Your task to perform on an android device: clear all cookies in the chrome app Image 0: 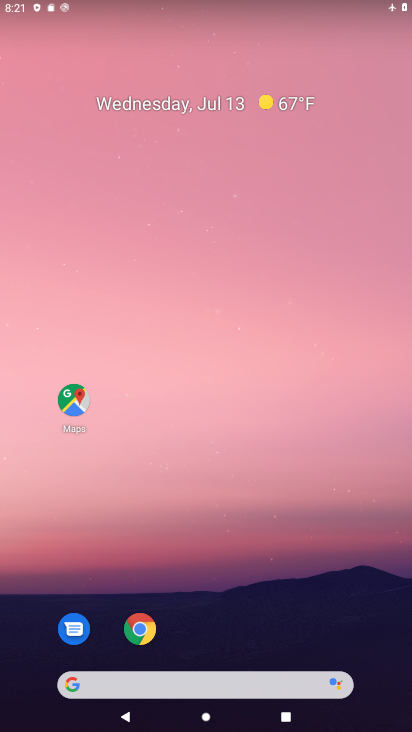
Step 0: click (137, 632)
Your task to perform on an android device: clear all cookies in the chrome app Image 1: 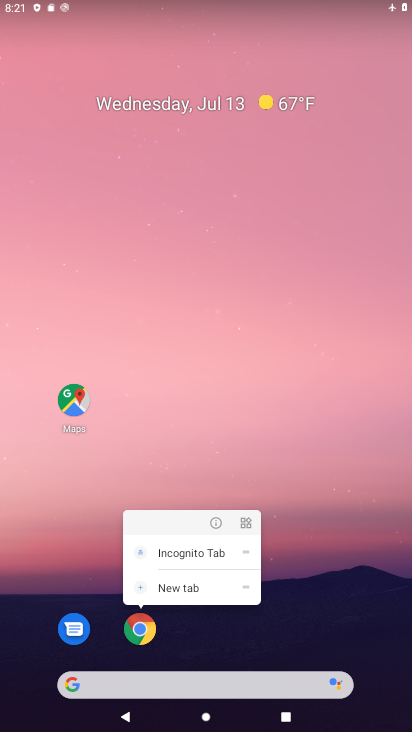
Step 1: click (146, 629)
Your task to perform on an android device: clear all cookies in the chrome app Image 2: 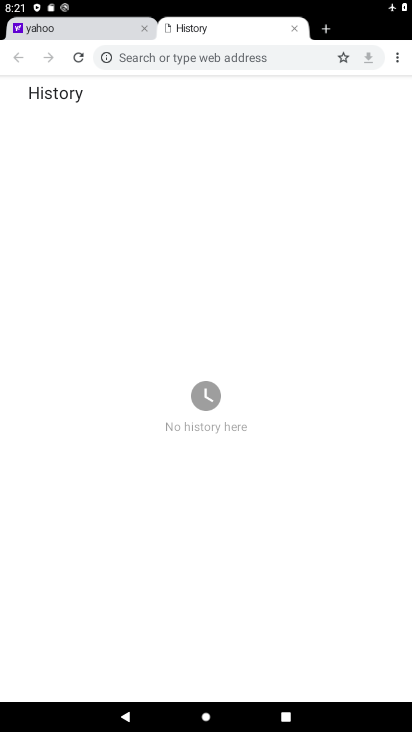
Step 2: task complete